Your task to perform on an android device: turn off translation in the chrome app Image 0: 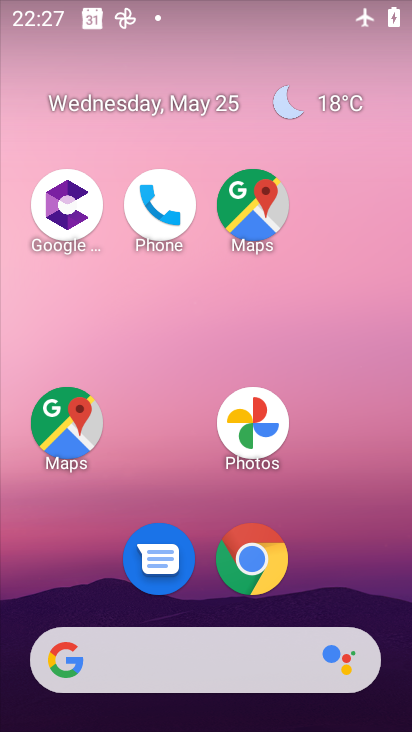
Step 0: click (259, 554)
Your task to perform on an android device: turn off translation in the chrome app Image 1: 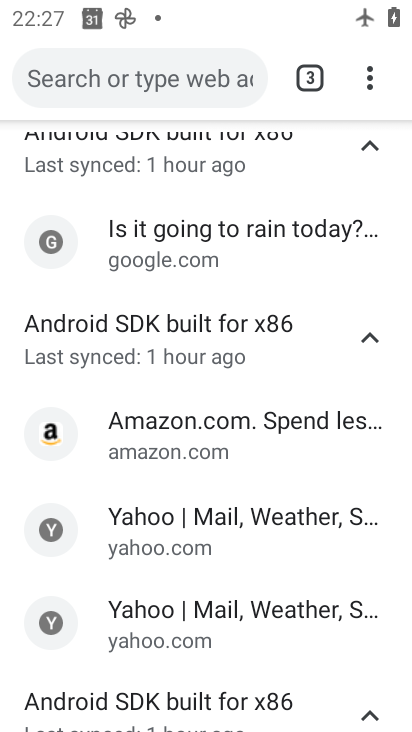
Step 1: click (383, 70)
Your task to perform on an android device: turn off translation in the chrome app Image 2: 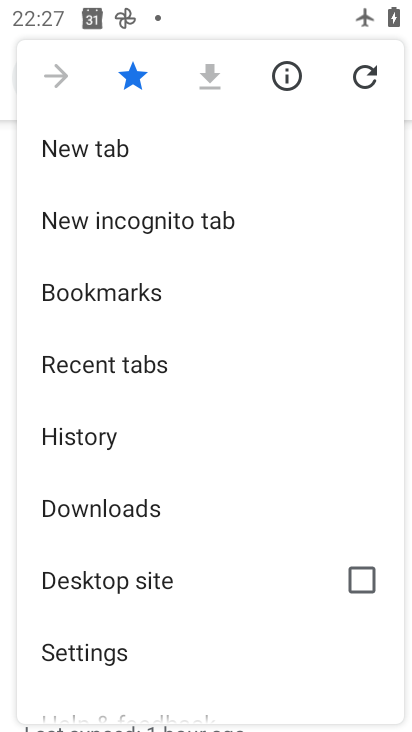
Step 2: click (117, 647)
Your task to perform on an android device: turn off translation in the chrome app Image 3: 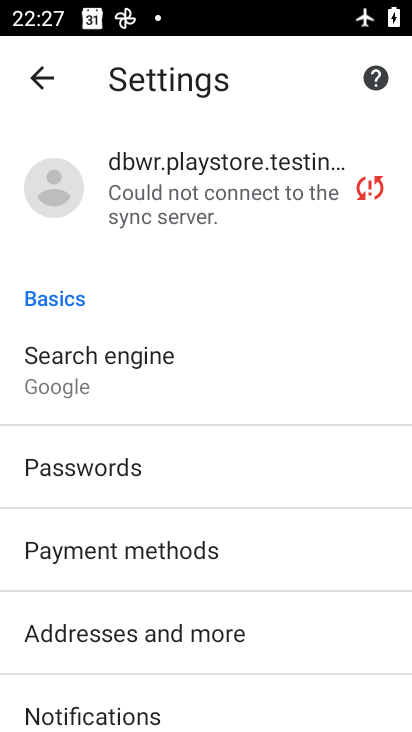
Step 3: drag from (284, 628) to (316, 187)
Your task to perform on an android device: turn off translation in the chrome app Image 4: 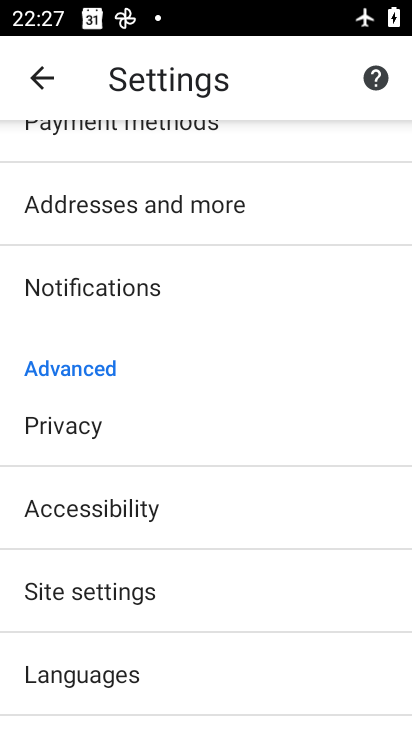
Step 4: click (133, 668)
Your task to perform on an android device: turn off translation in the chrome app Image 5: 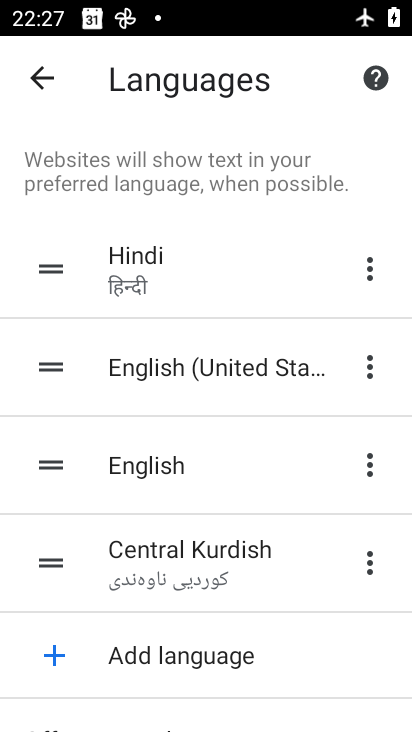
Step 5: task complete